Your task to perform on an android device: turn on bluetooth scan Image 0: 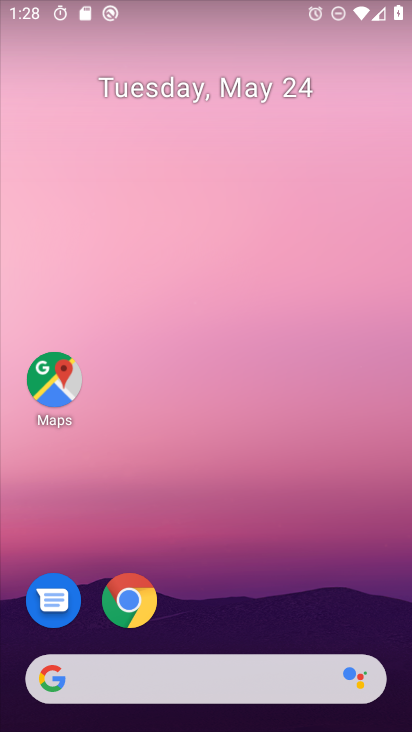
Step 0: drag from (294, 573) to (267, 119)
Your task to perform on an android device: turn on bluetooth scan Image 1: 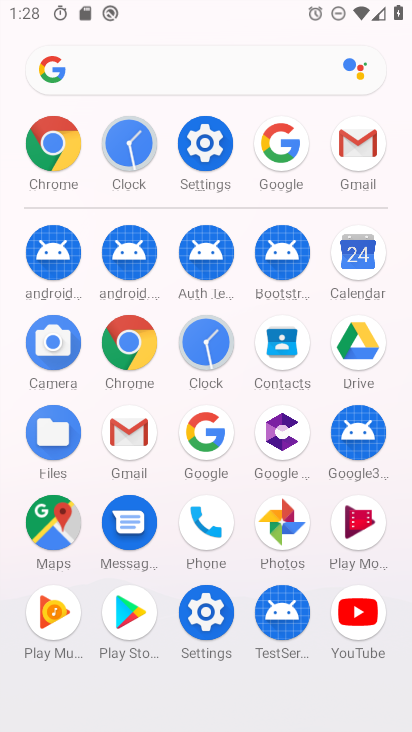
Step 1: click (195, 135)
Your task to perform on an android device: turn on bluetooth scan Image 2: 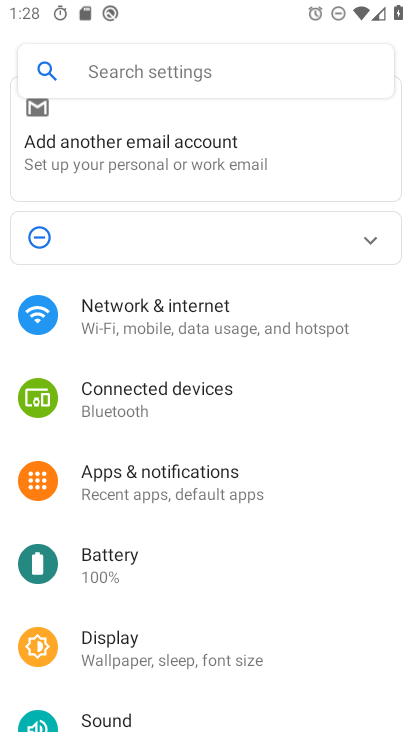
Step 2: drag from (240, 594) to (235, 202)
Your task to perform on an android device: turn on bluetooth scan Image 3: 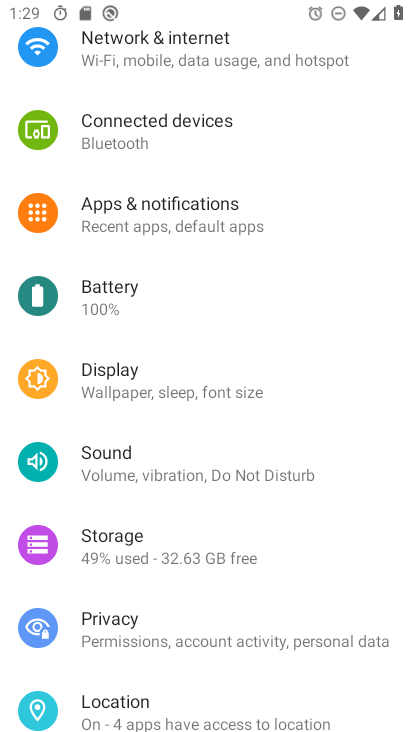
Step 3: click (143, 705)
Your task to perform on an android device: turn on bluetooth scan Image 4: 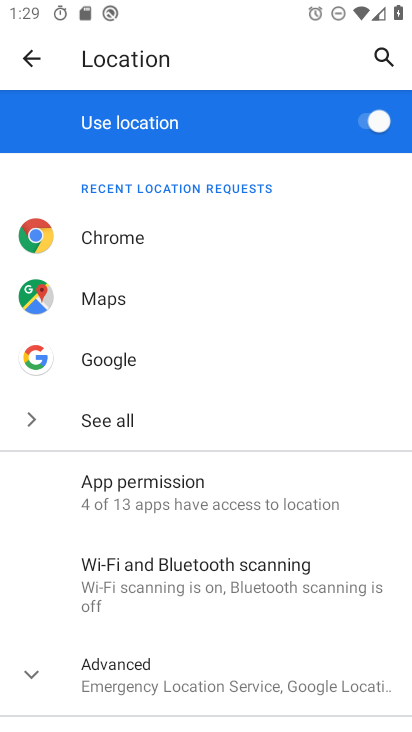
Step 4: click (197, 588)
Your task to perform on an android device: turn on bluetooth scan Image 5: 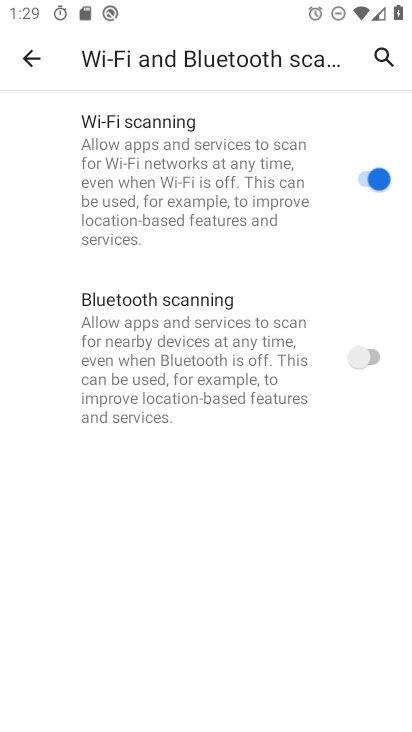
Step 5: click (368, 362)
Your task to perform on an android device: turn on bluetooth scan Image 6: 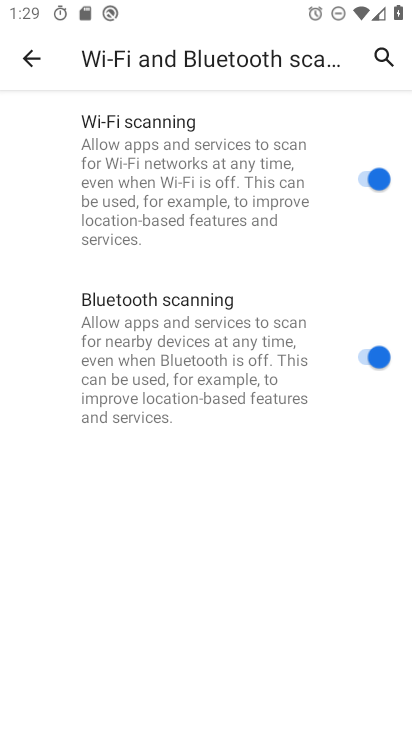
Step 6: task complete